Your task to perform on an android device: delete a single message in the gmail app Image 0: 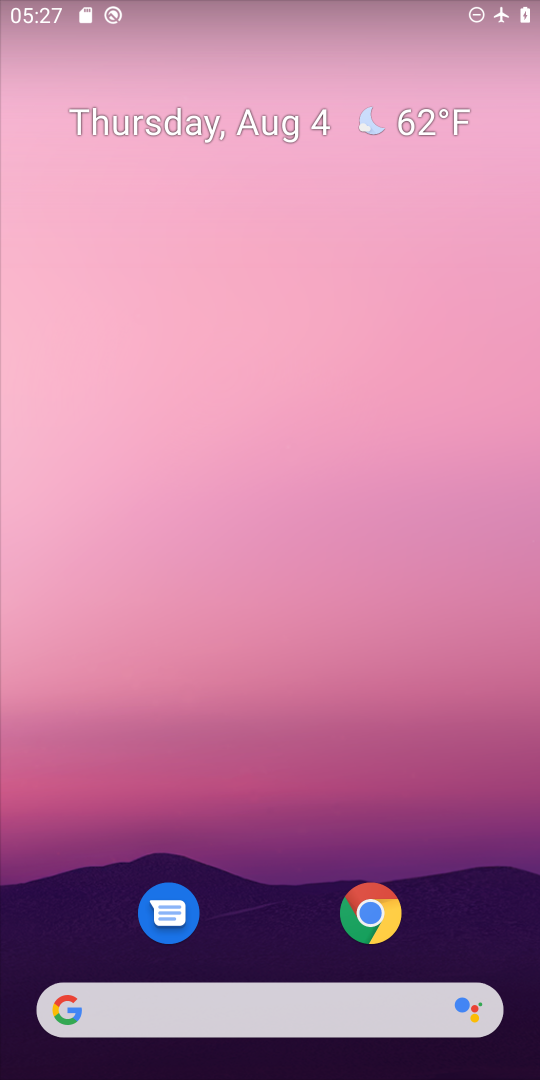
Step 0: drag from (327, 981) to (396, 9)
Your task to perform on an android device: delete a single message in the gmail app Image 1: 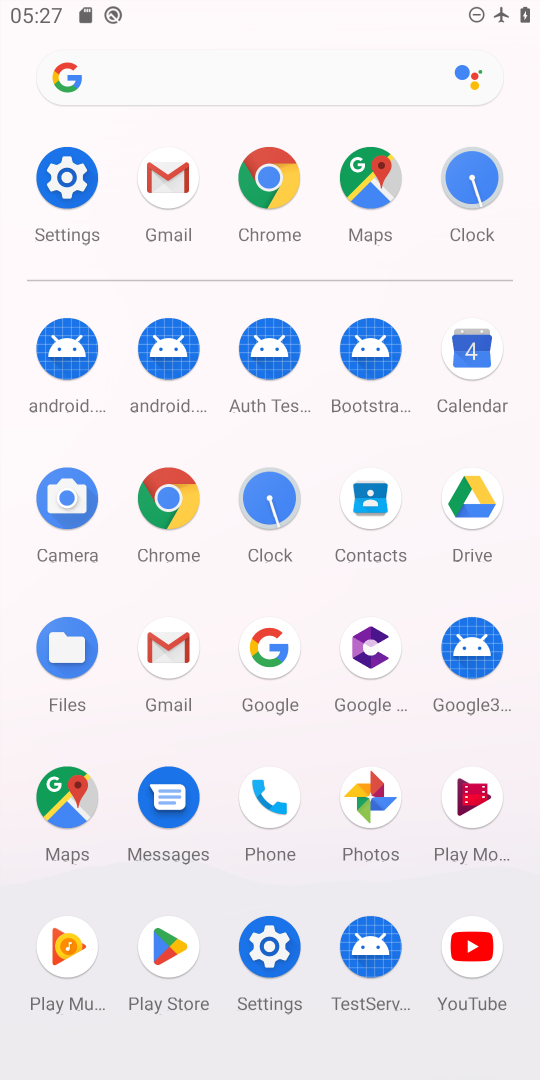
Step 1: click (164, 639)
Your task to perform on an android device: delete a single message in the gmail app Image 2: 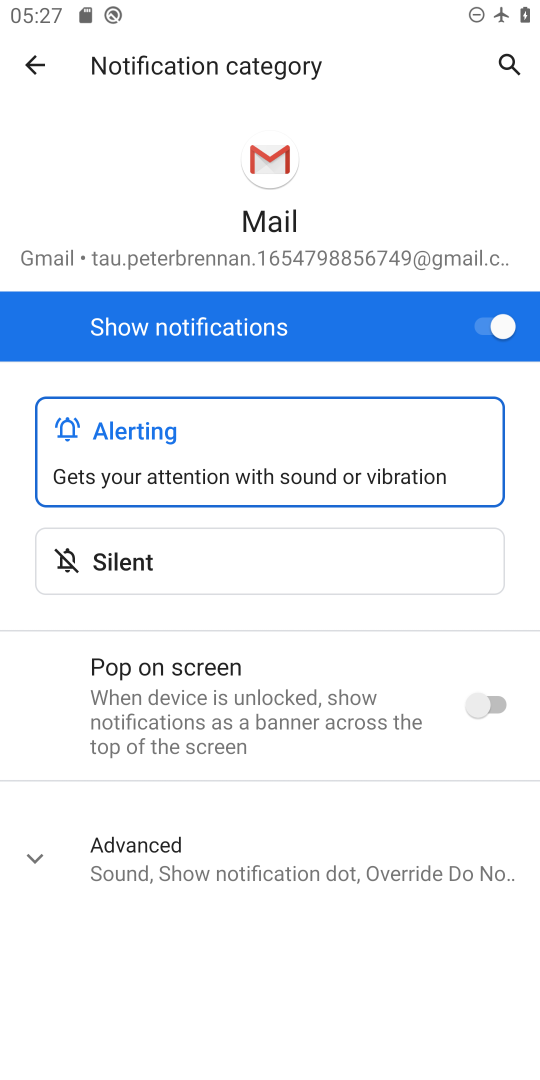
Step 2: press back button
Your task to perform on an android device: delete a single message in the gmail app Image 3: 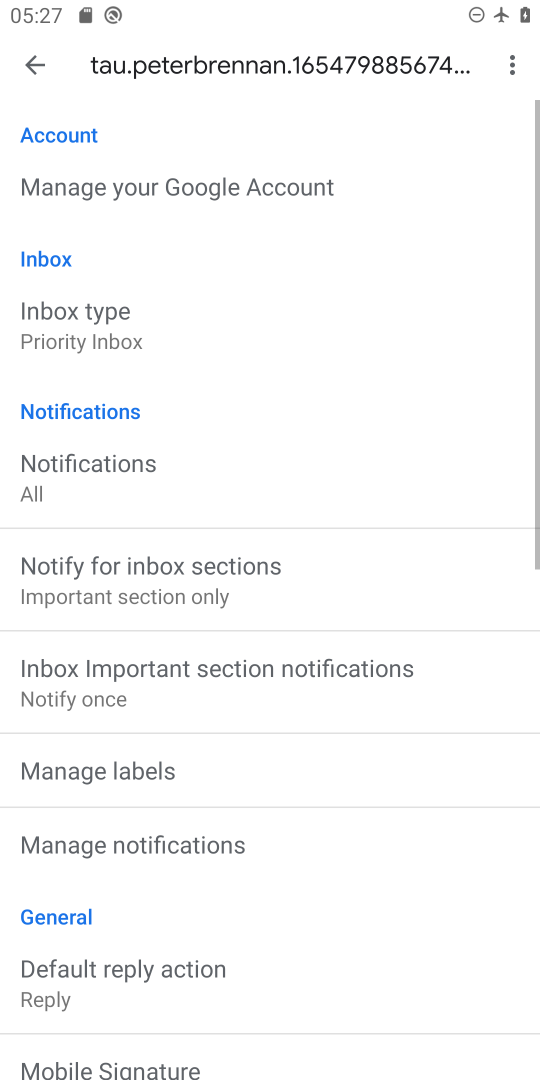
Step 3: press back button
Your task to perform on an android device: delete a single message in the gmail app Image 4: 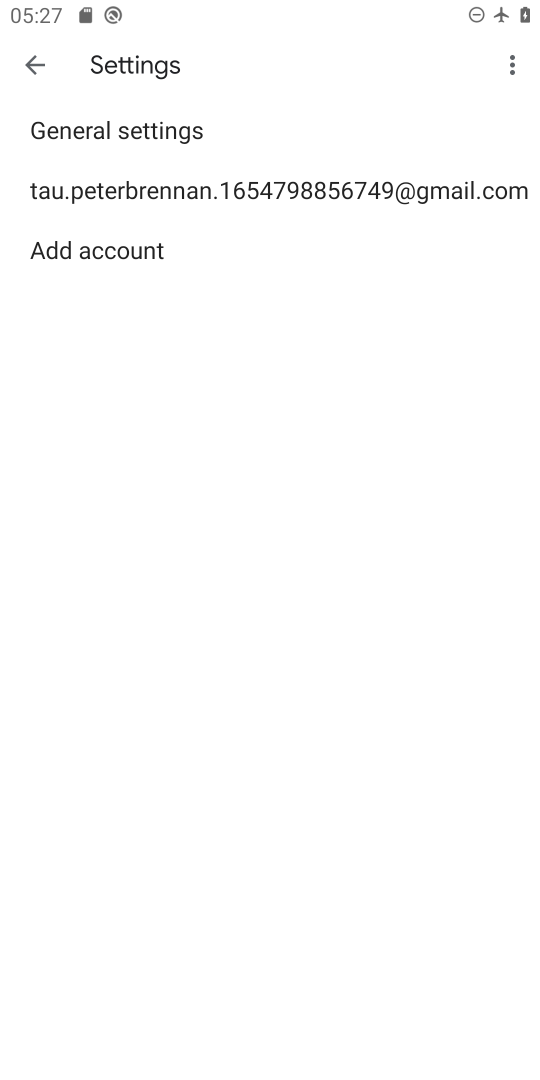
Step 4: press back button
Your task to perform on an android device: delete a single message in the gmail app Image 5: 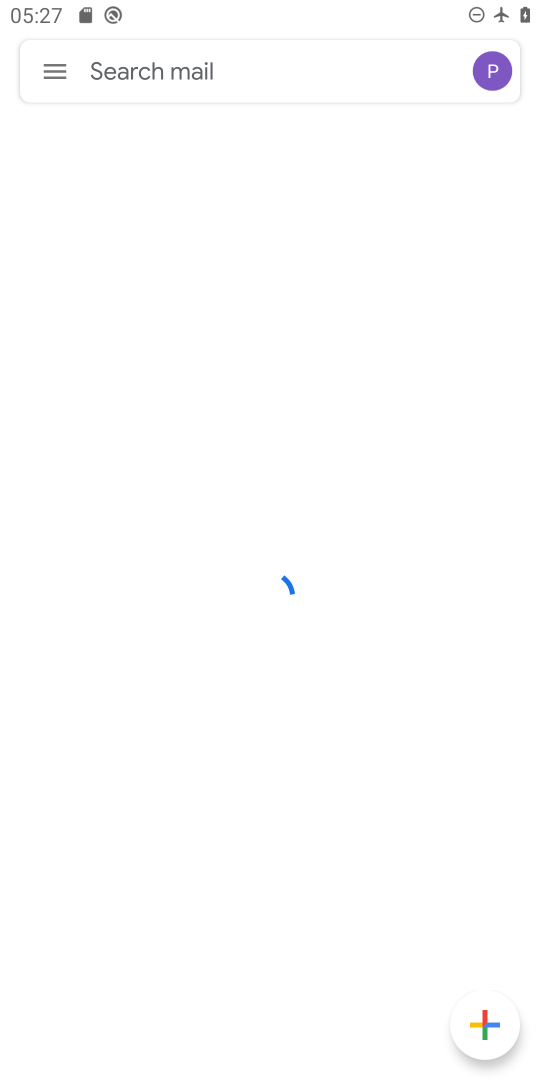
Step 5: click (52, 68)
Your task to perform on an android device: delete a single message in the gmail app Image 6: 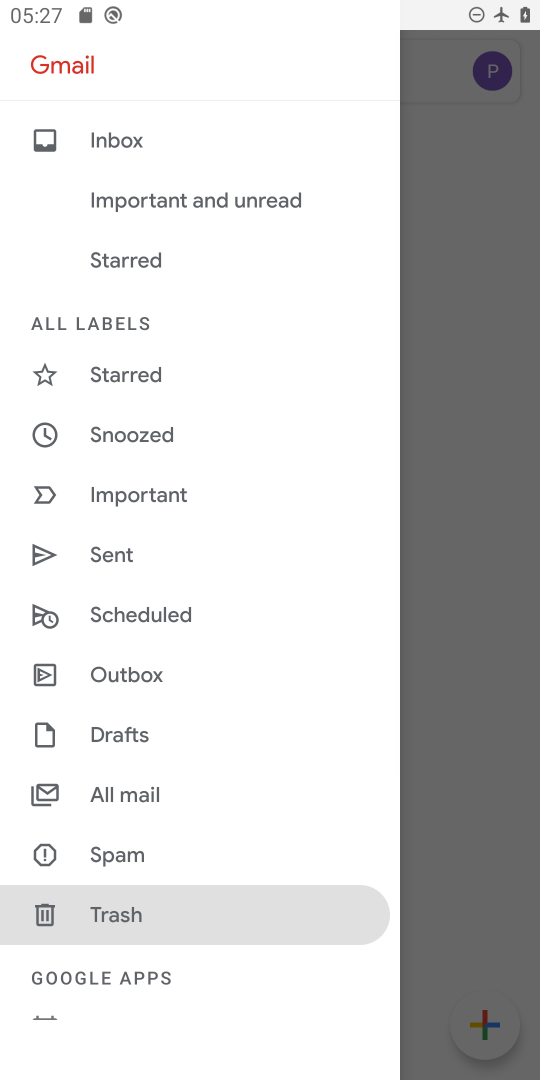
Step 6: click (476, 618)
Your task to perform on an android device: delete a single message in the gmail app Image 7: 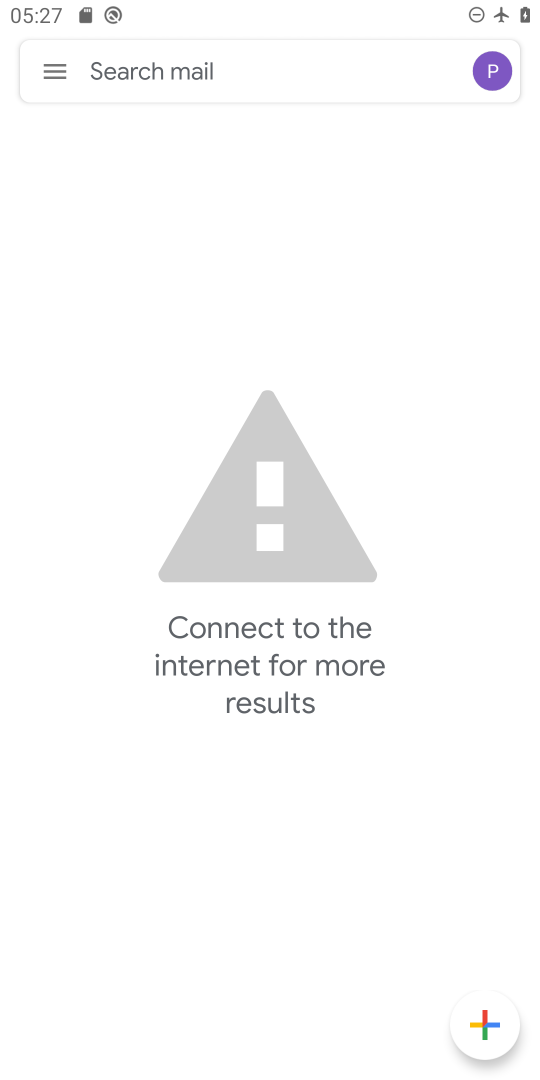
Step 7: task complete